Your task to perform on an android device: change the clock display to digital Image 0: 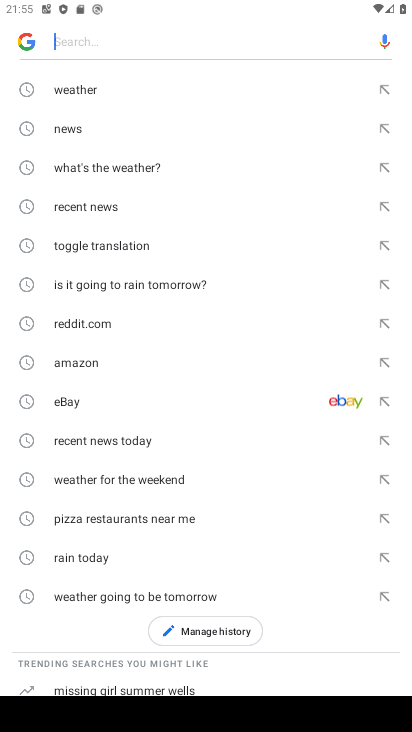
Step 0: press home button
Your task to perform on an android device: change the clock display to digital Image 1: 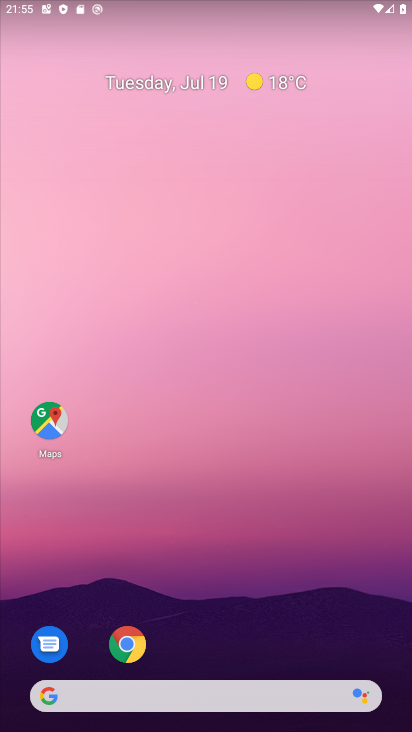
Step 1: drag from (220, 728) to (203, 79)
Your task to perform on an android device: change the clock display to digital Image 2: 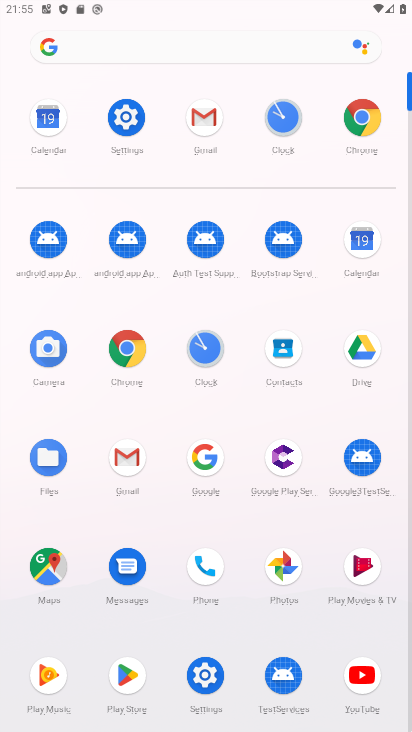
Step 2: click (205, 336)
Your task to perform on an android device: change the clock display to digital Image 3: 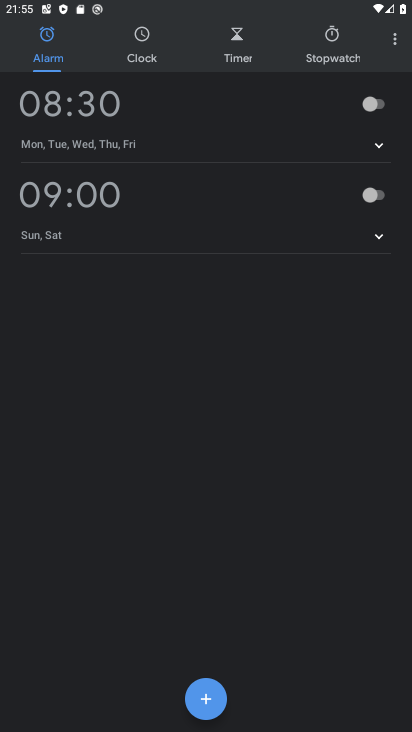
Step 3: click (394, 43)
Your task to perform on an android device: change the clock display to digital Image 4: 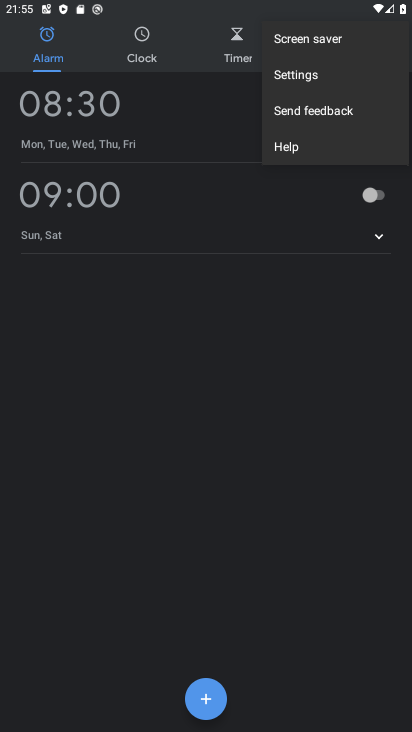
Step 4: click (273, 74)
Your task to perform on an android device: change the clock display to digital Image 5: 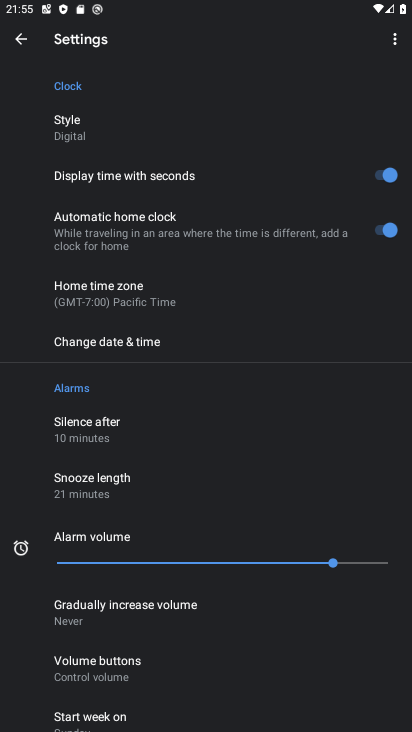
Step 5: task complete